Your task to perform on an android device: Open wifi settings Image 0: 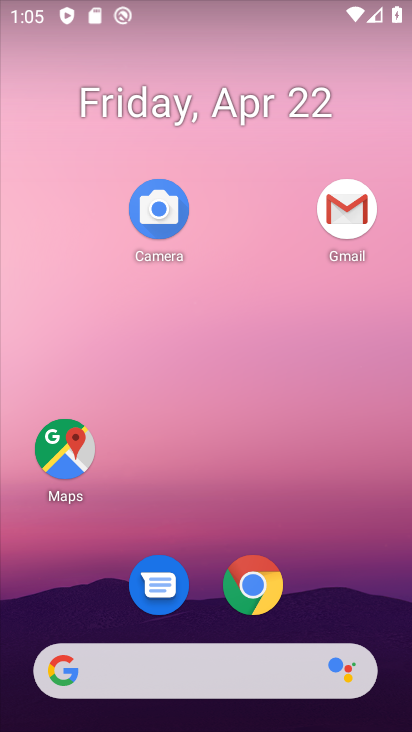
Step 0: drag from (329, 583) to (340, 123)
Your task to perform on an android device: Open wifi settings Image 1: 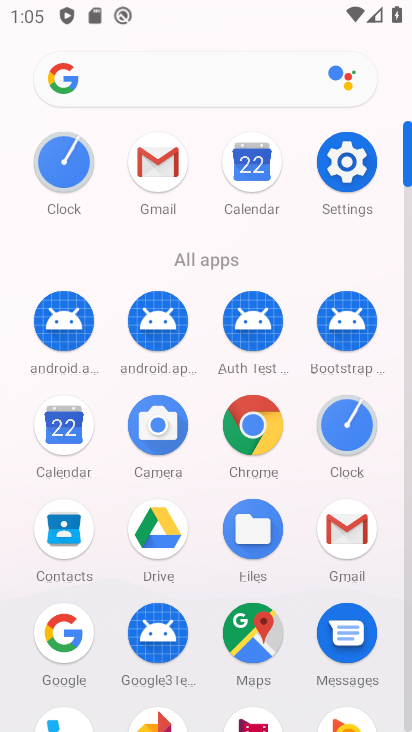
Step 1: click (347, 161)
Your task to perform on an android device: Open wifi settings Image 2: 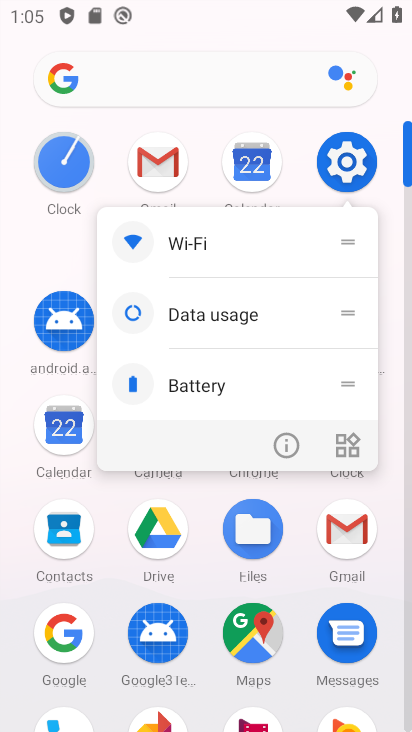
Step 2: click (347, 161)
Your task to perform on an android device: Open wifi settings Image 3: 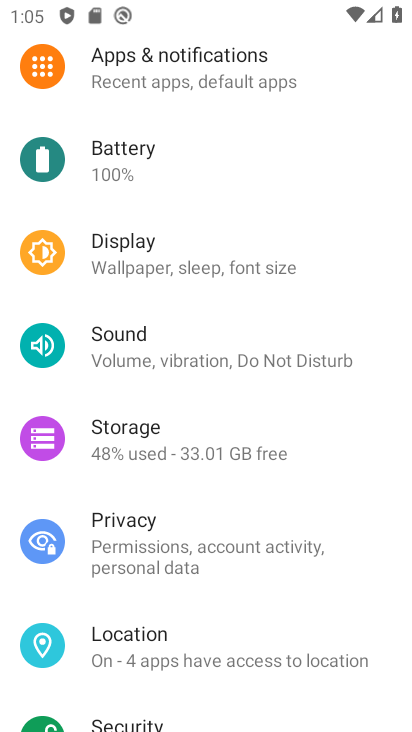
Step 3: drag from (267, 207) to (256, 604)
Your task to perform on an android device: Open wifi settings Image 4: 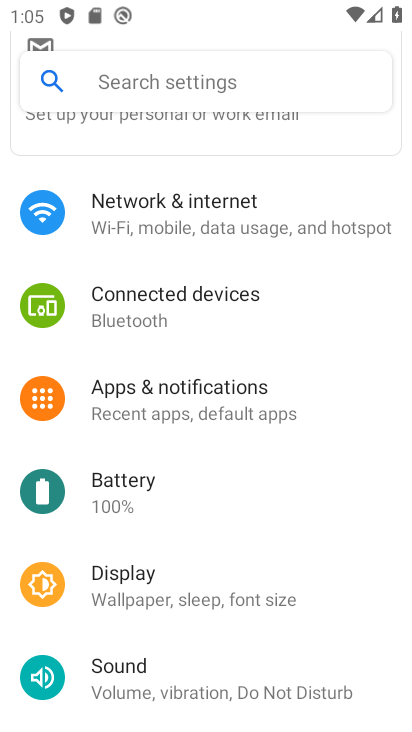
Step 4: click (288, 213)
Your task to perform on an android device: Open wifi settings Image 5: 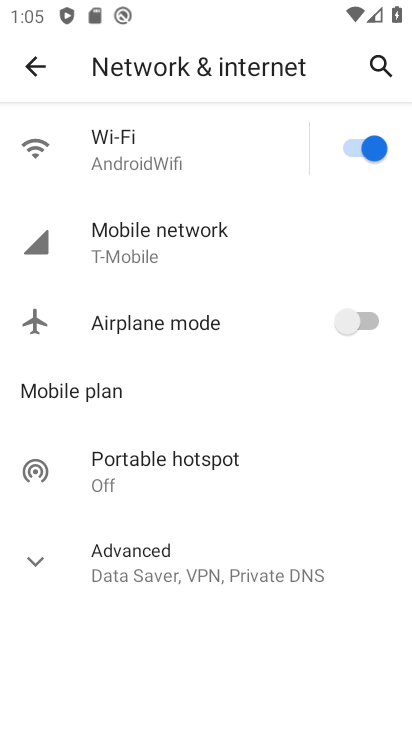
Step 5: click (214, 153)
Your task to perform on an android device: Open wifi settings Image 6: 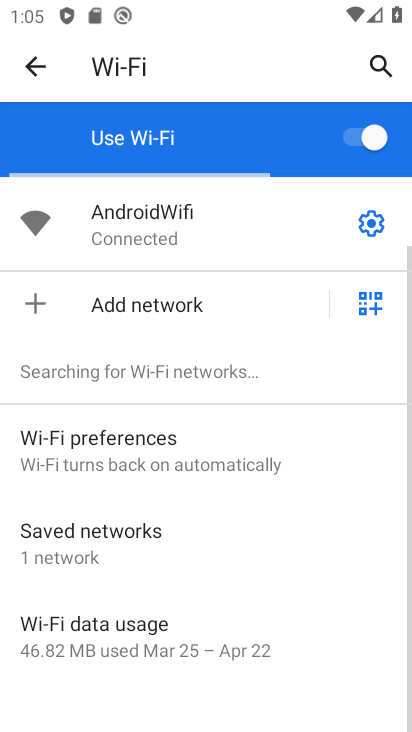
Step 6: task complete